Your task to perform on an android device: delete a single message in the gmail app Image 0: 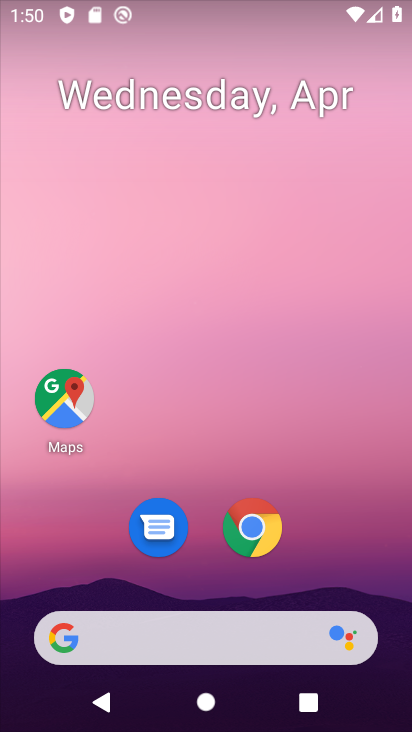
Step 0: drag from (207, 587) to (220, 132)
Your task to perform on an android device: delete a single message in the gmail app Image 1: 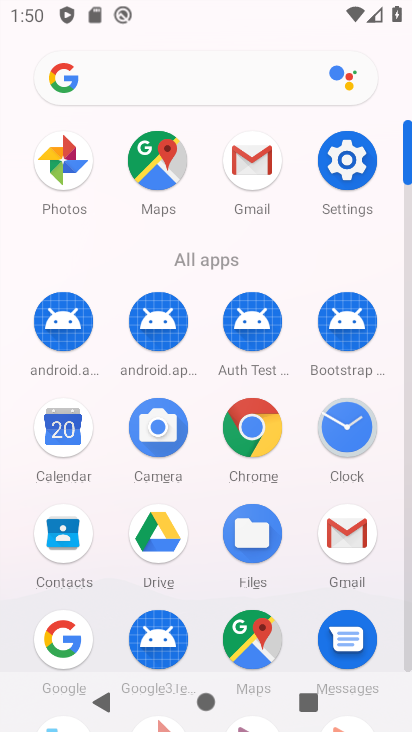
Step 1: click (267, 170)
Your task to perform on an android device: delete a single message in the gmail app Image 2: 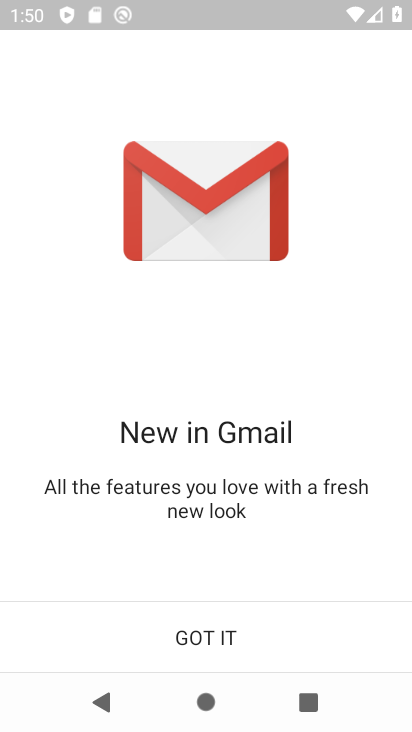
Step 2: click (189, 638)
Your task to perform on an android device: delete a single message in the gmail app Image 3: 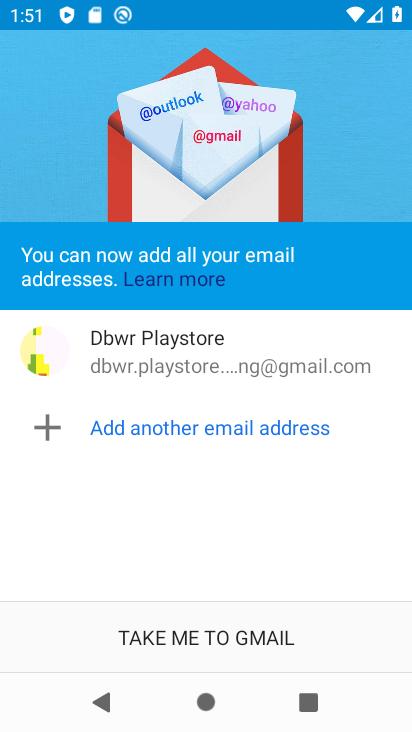
Step 3: click (202, 625)
Your task to perform on an android device: delete a single message in the gmail app Image 4: 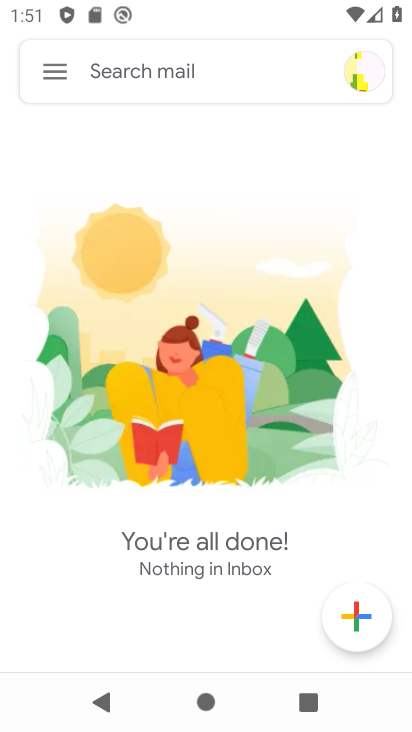
Step 4: task complete